Your task to perform on an android device: add a contact in the contacts app Image 0: 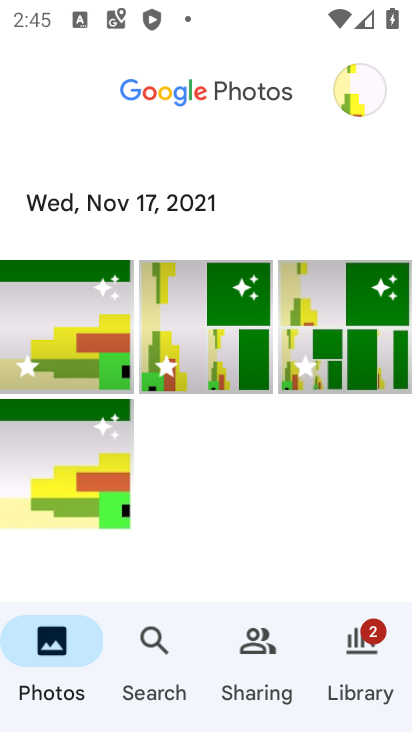
Step 0: press home button
Your task to perform on an android device: add a contact in the contacts app Image 1: 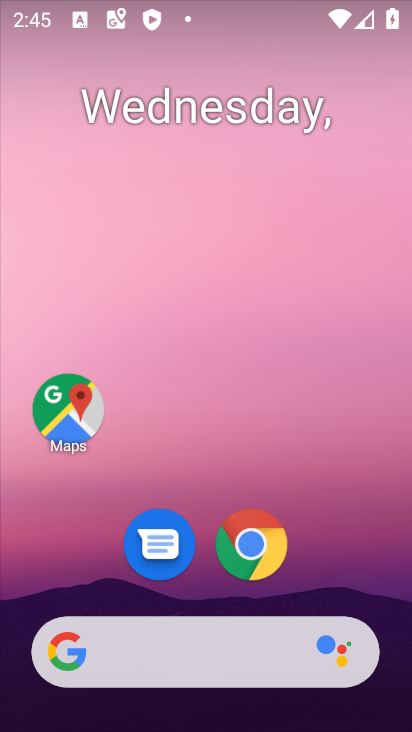
Step 1: drag from (390, 644) to (340, 95)
Your task to perform on an android device: add a contact in the contacts app Image 2: 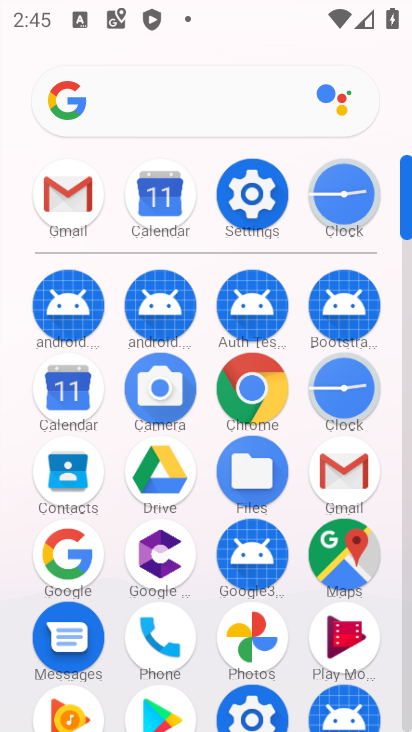
Step 2: click (408, 677)
Your task to perform on an android device: add a contact in the contacts app Image 3: 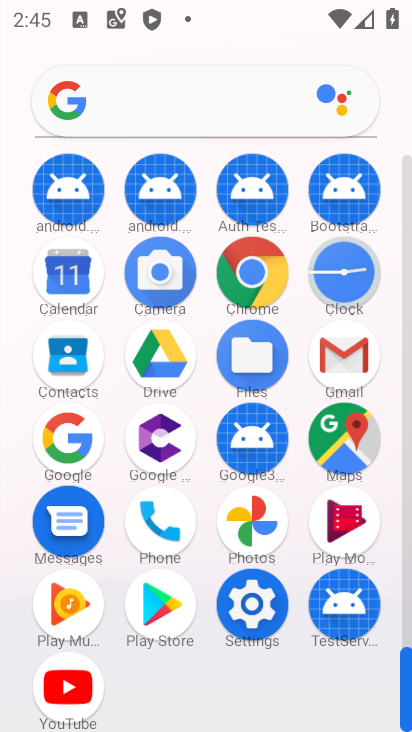
Step 3: click (63, 352)
Your task to perform on an android device: add a contact in the contacts app Image 4: 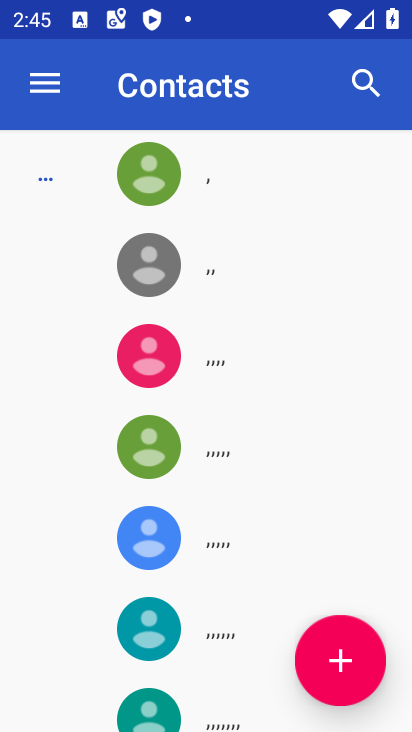
Step 4: click (341, 655)
Your task to perform on an android device: add a contact in the contacts app Image 5: 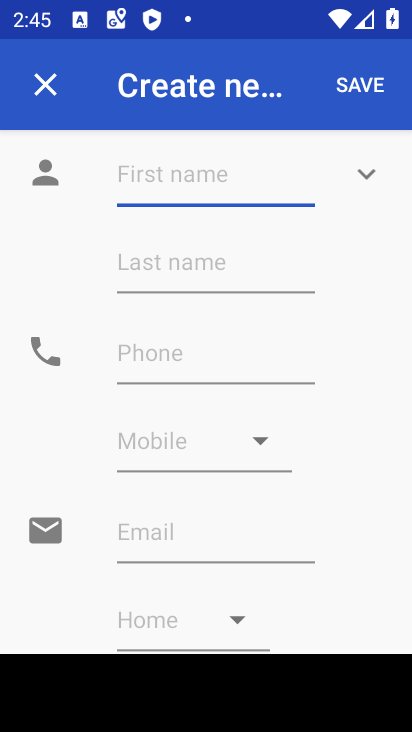
Step 5: type "adghuso"
Your task to perform on an android device: add a contact in the contacts app Image 6: 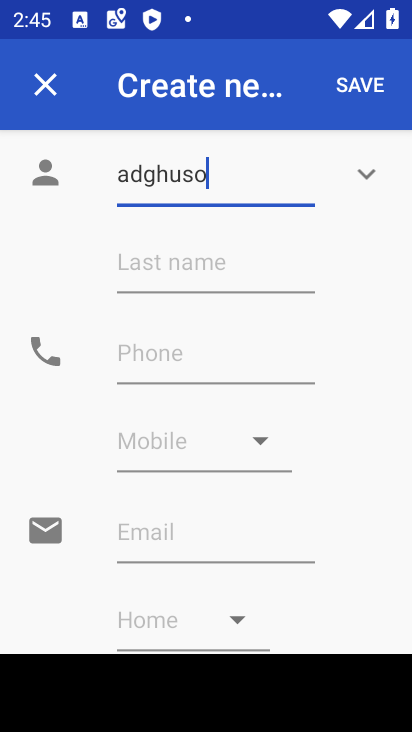
Step 6: click (136, 367)
Your task to perform on an android device: add a contact in the contacts app Image 7: 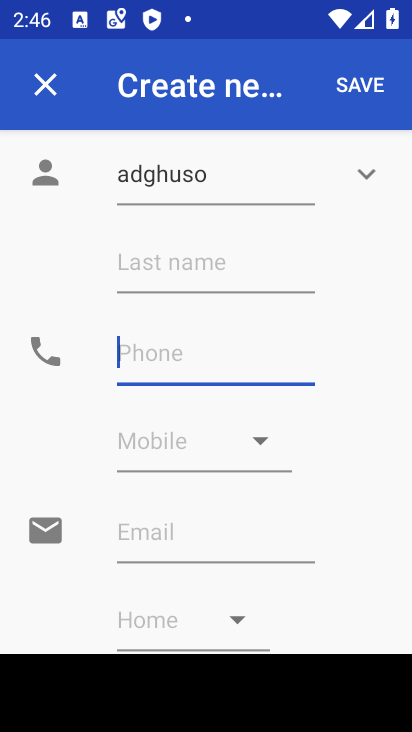
Step 7: type "9823568"
Your task to perform on an android device: add a contact in the contacts app Image 8: 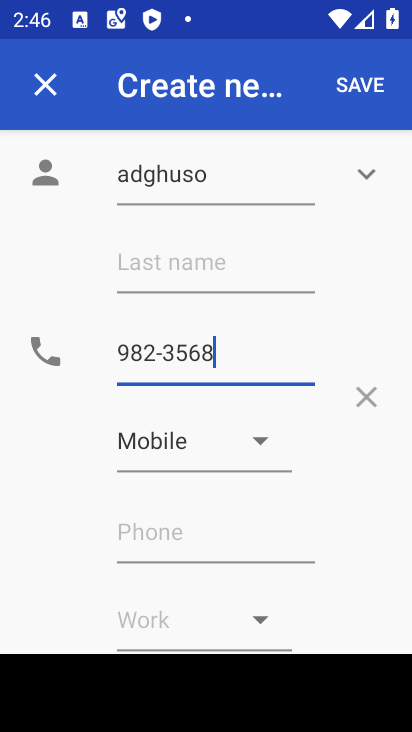
Step 8: click (260, 440)
Your task to perform on an android device: add a contact in the contacts app Image 9: 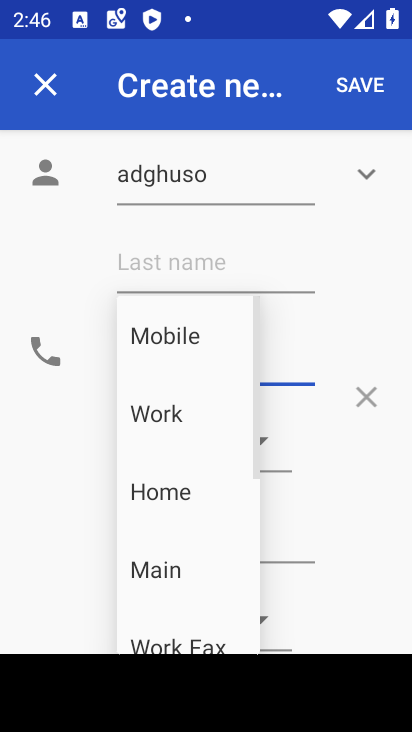
Step 9: click (167, 413)
Your task to perform on an android device: add a contact in the contacts app Image 10: 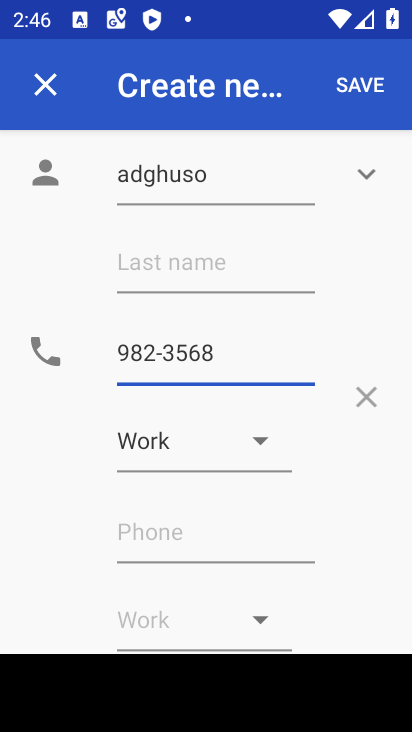
Step 10: click (365, 87)
Your task to perform on an android device: add a contact in the contacts app Image 11: 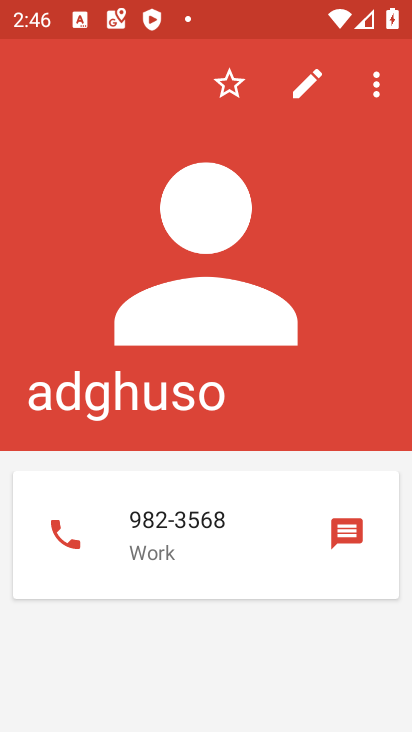
Step 11: task complete